Your task to perform on an android device: Open Amazon Image 0: 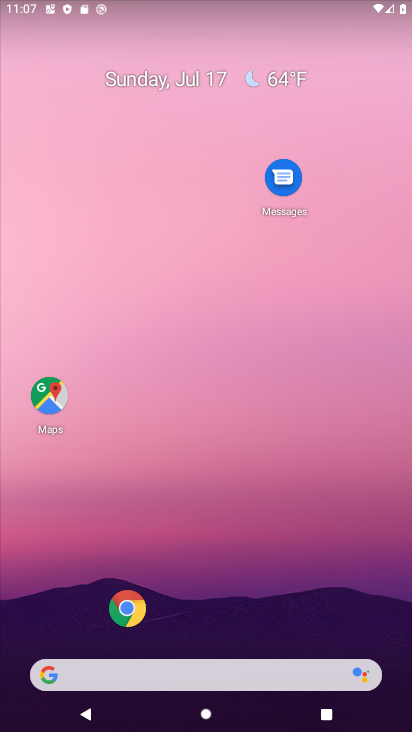
Step 0: click (82, 676)
Your task to perform on an android device: Open Amazon Image 1: 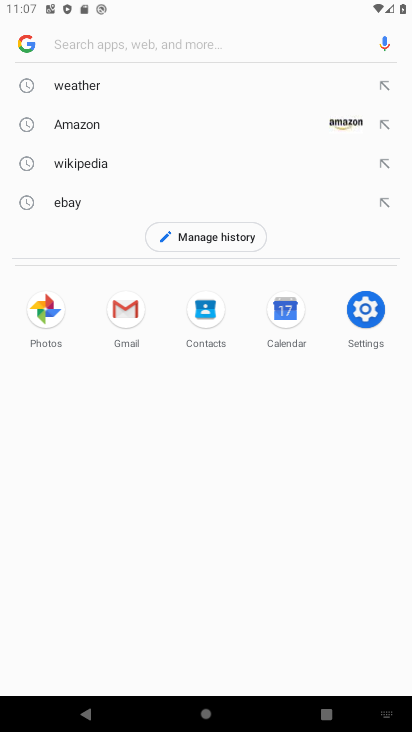
Step 1: click (86, 133)
Your task to perform on an android device: Open Amazon Image 2: 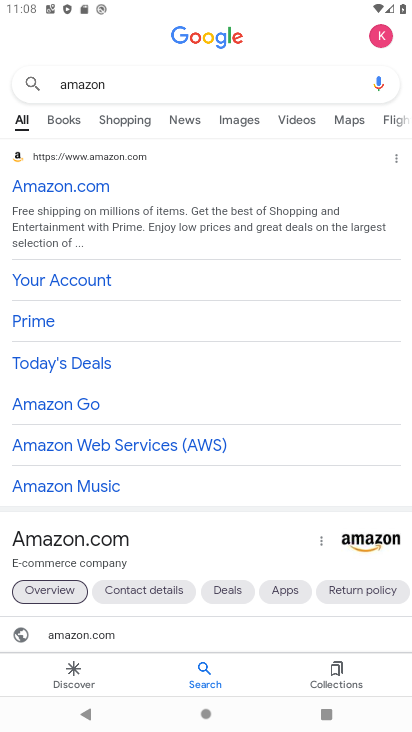
Step 2: task complete